Your task to perform on an android device: What's the weather? Image 0: 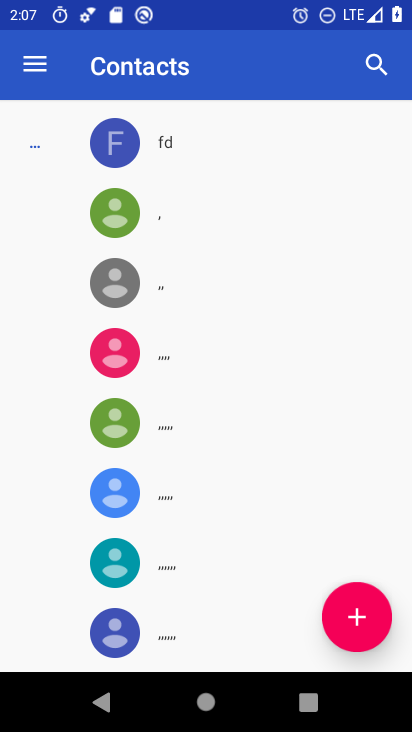
Step 0: press home button
Your task to perform on an android device: What's the weather? Image 1: 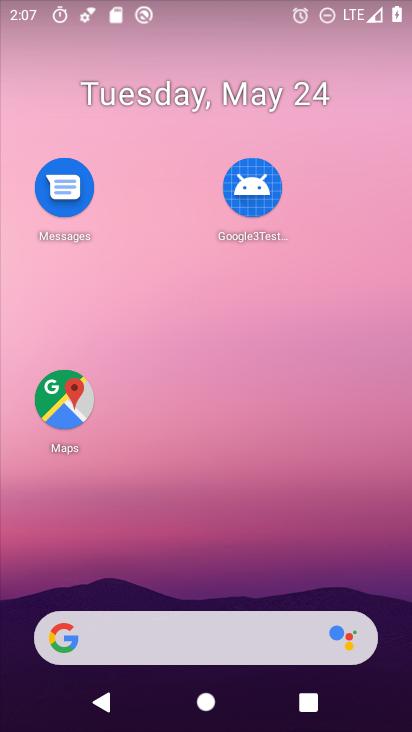
Step 1: click (176, 639)
Your task to perform on an android device: What's the weather? Image 2: 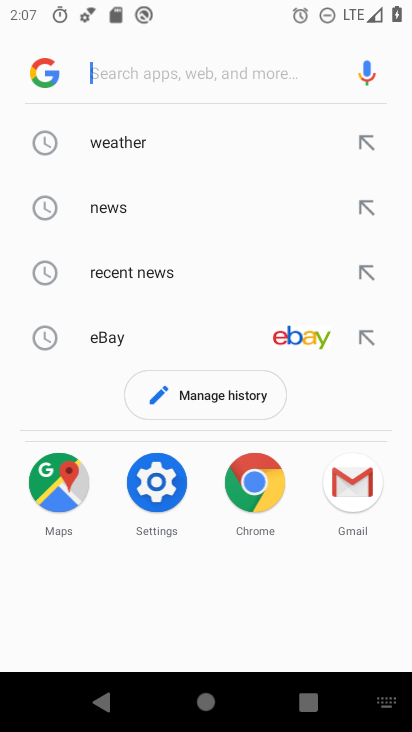
Step 2: click (134, 140)
Your task to perform on an android device: What's the weather? Image 3: 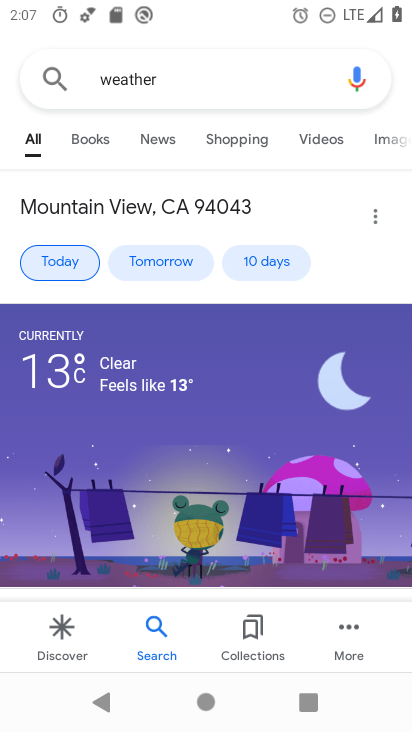
Step 3: task complete